Your task to perform on an android device: Open the stopwatch Image 0: 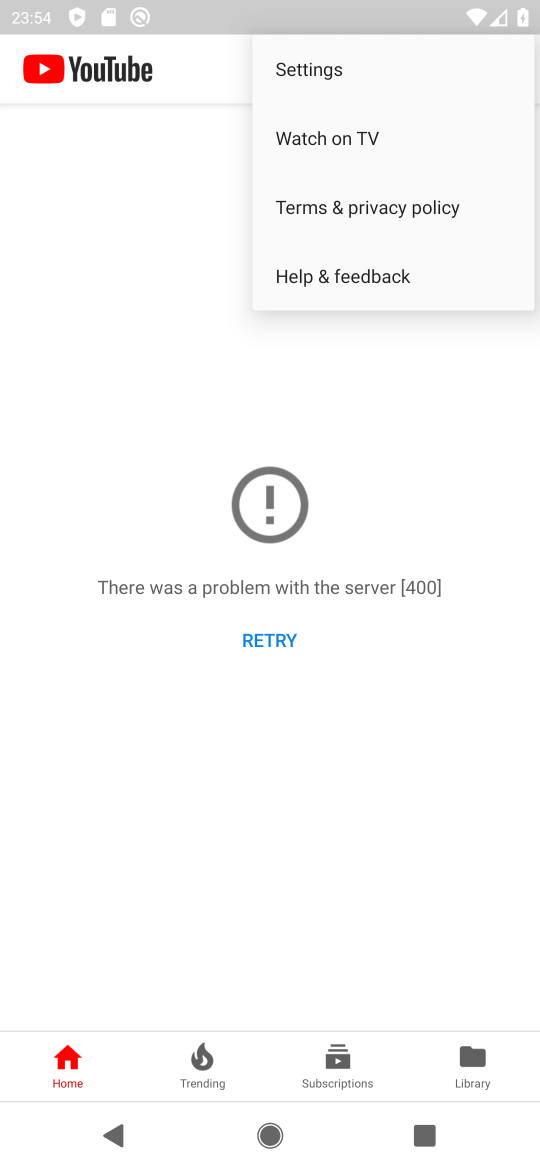
Step 0: press home button
Your task to perform on an android device: Open the stopwatch Image 1: 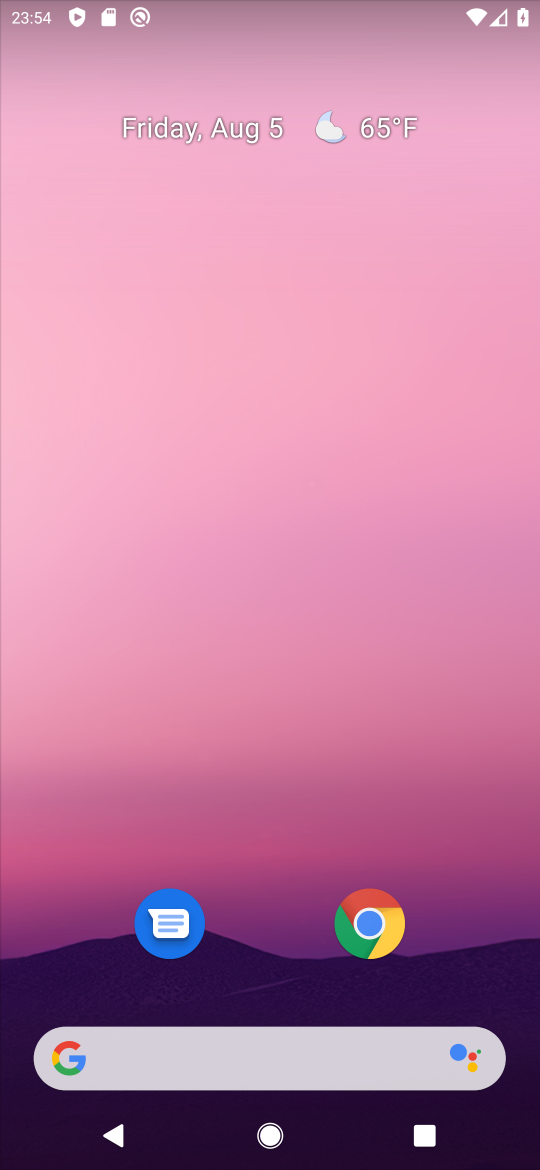
Step 1: drag from (511, 988) to (359, 303)
Your task to perform on an android device: Open the stopwatch Image 2: 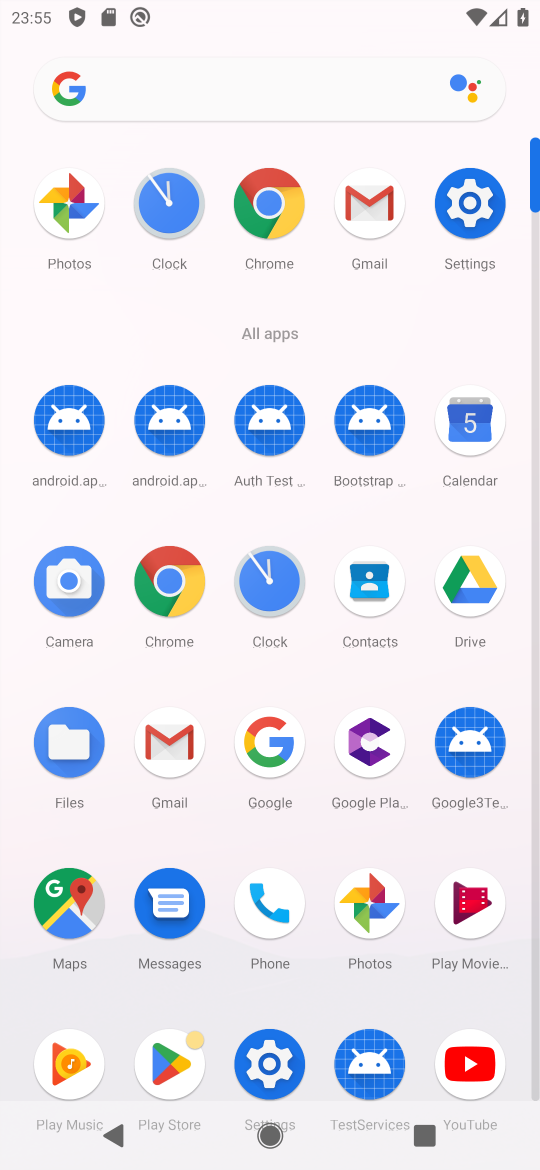
Step 2: click (186, 210)
Your task to perform on an android device: Open the stopwatch Image 3: 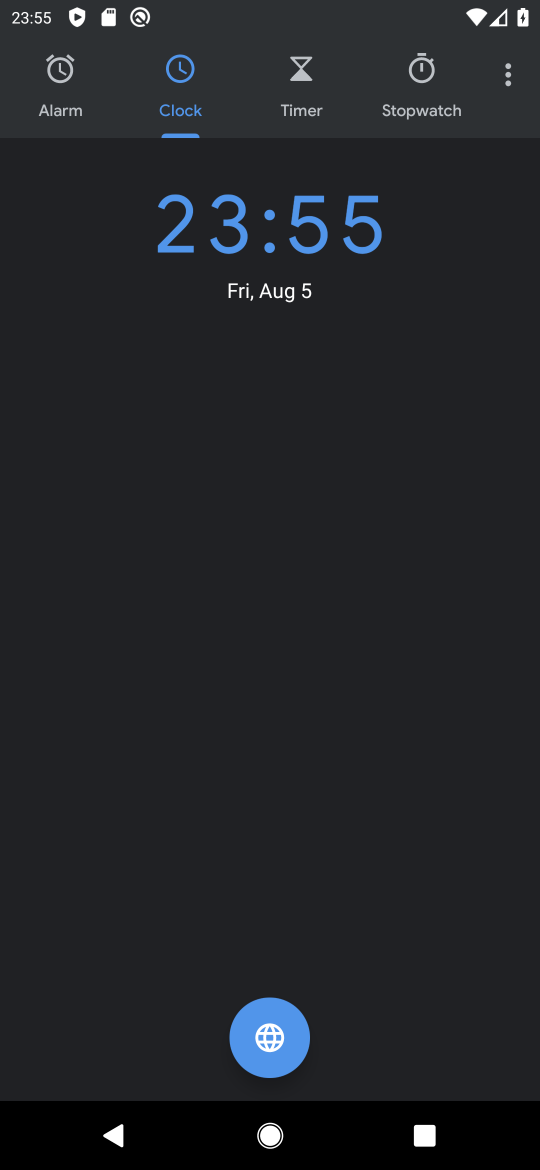
Step 3: click (444, 106)
Your task to perform on an android device: Open the stopwatch Image 4: 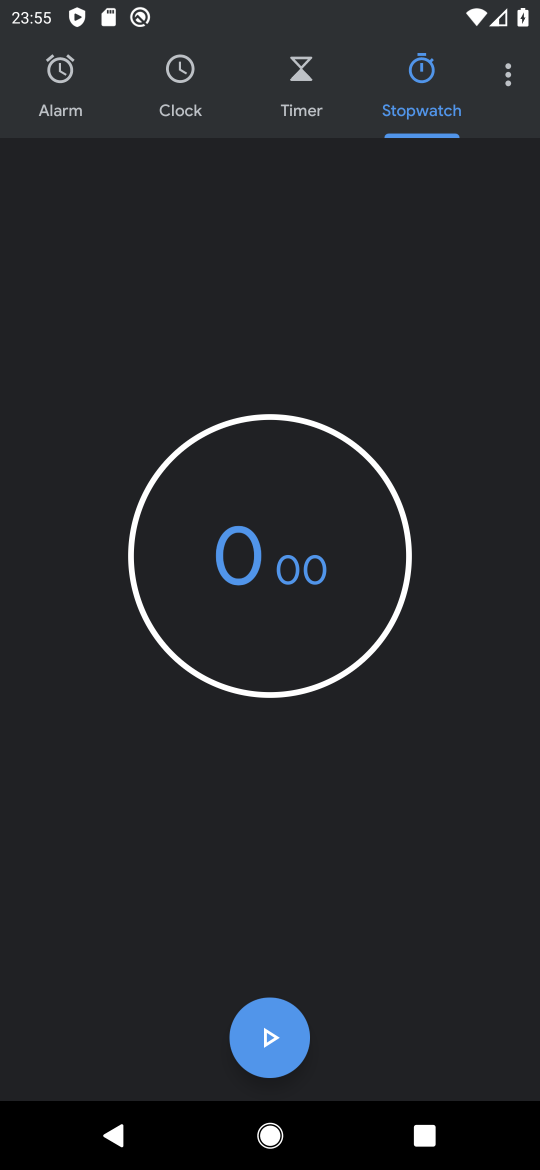
Step 4: task complete